Your task to perform on an android device: Is it going to rain today? Image 0: 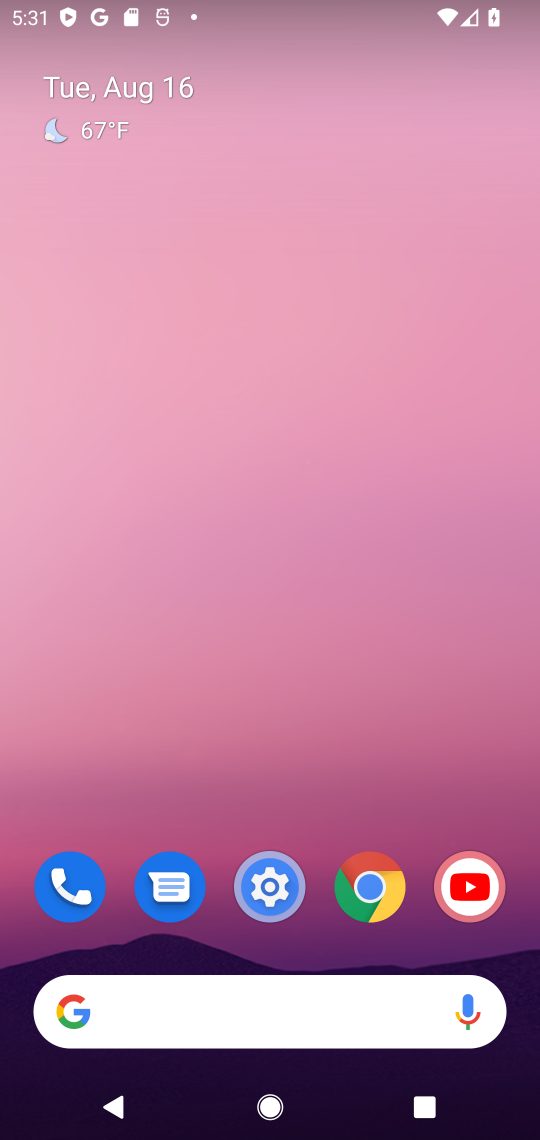
Step 0: click (108, 129)
Your task to perform on an android device: Is it going to rain today? Image 1: 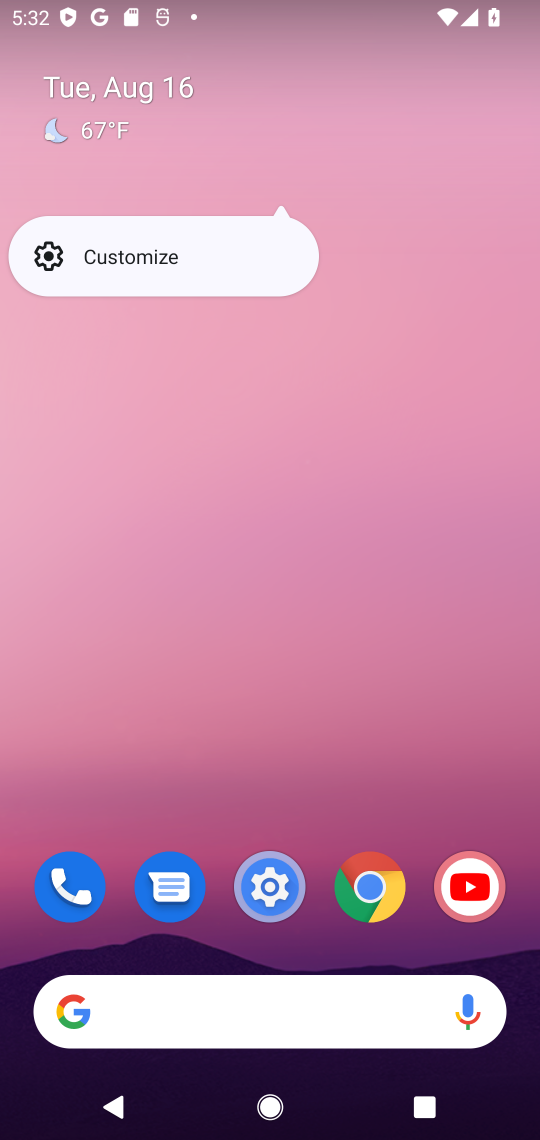
Step 1: click (91, 125)
Your task to perform on an android device: Is it going to rain today? Image 2: 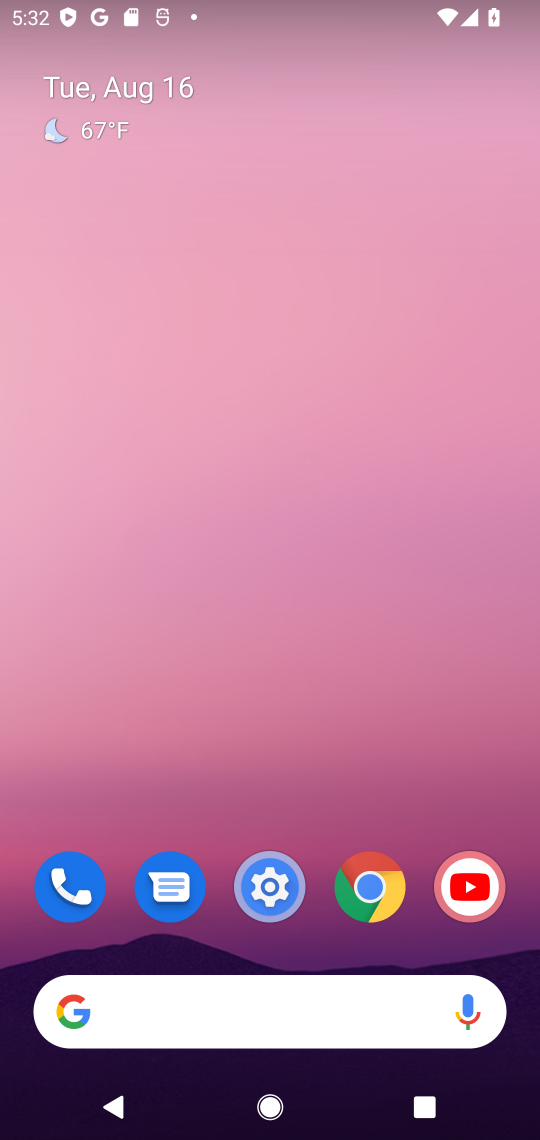
Step 2: click (97, 140)
Your task to perform on an android device: Is it going to rain today? Image 3: 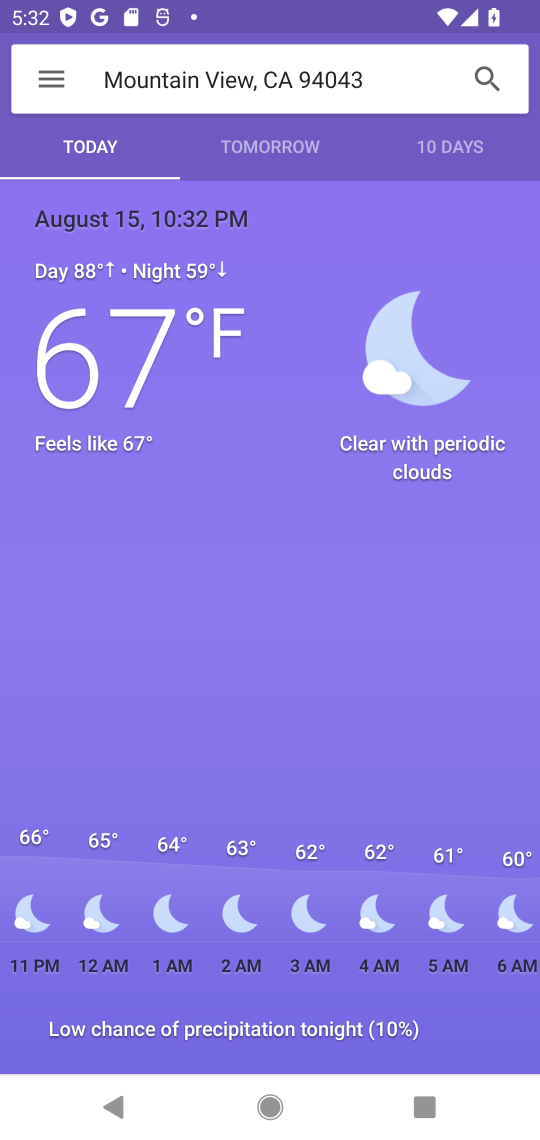
Step 3: task complete